Your task to perform on an android device: change the clock display to show seconds Image 0: 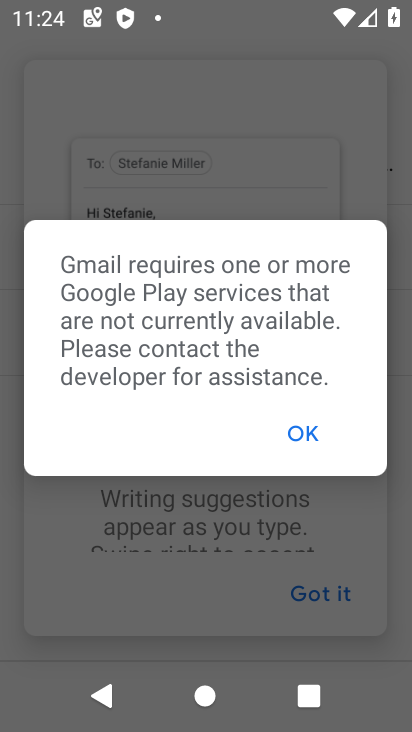
Step 0: press home button
Your task to perform on an android device: change the clock display to show seconds Image 1: 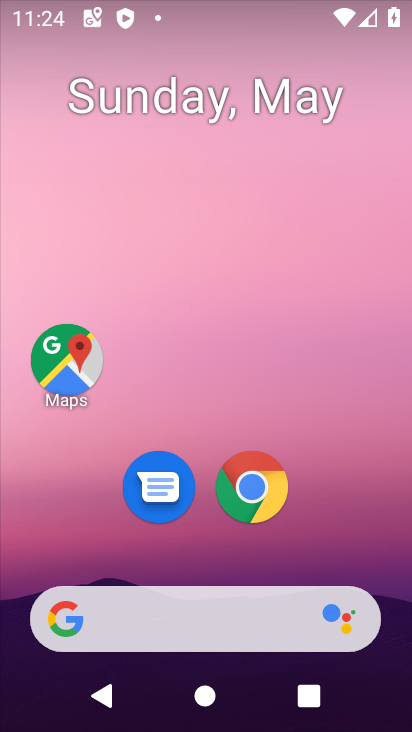
Step 1: drag from (371, 547) to (385, 179)
Your task to perform on an android device: change the clock display to show seconds Image 2: 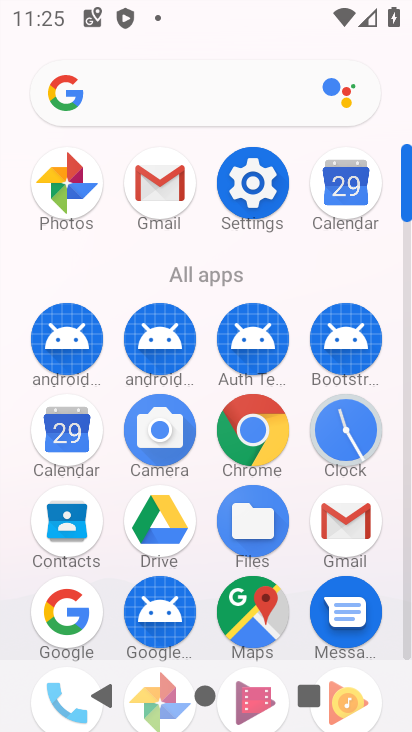
Step 2: click (339, 438)
Your task to perform on an android device: change the clock display to show seconds Image 3: 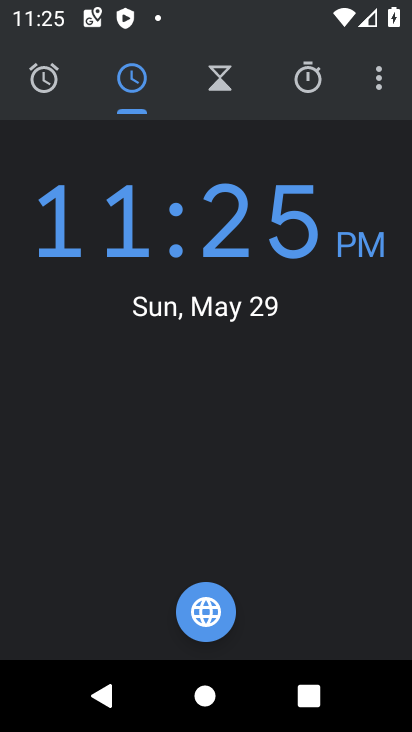
Step 3: click (378, 93)
Your task to perform on an android device: change the clock display to show seconds Image 4: 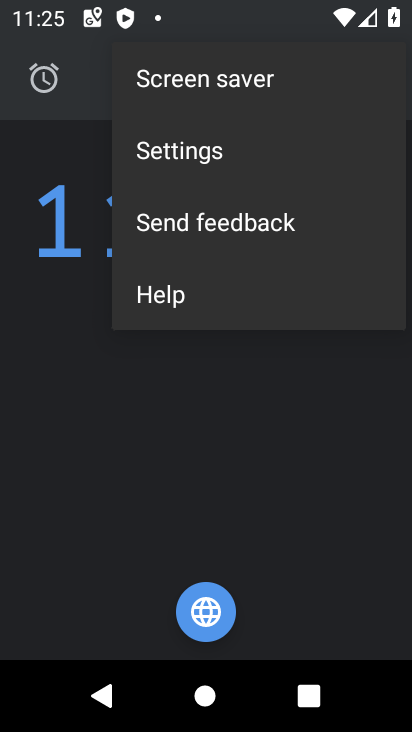
Step 4: click (234, 167)
Your task to perform on an android device: change the clock display to show seconds Image 5: 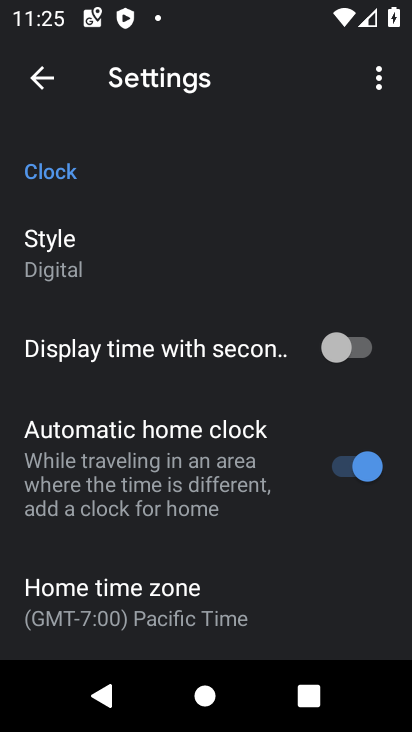
Step 5: drag from (285, 546) to (291, 427)
Your task to perform on an android device: change the clock display to show seconds Image 6: 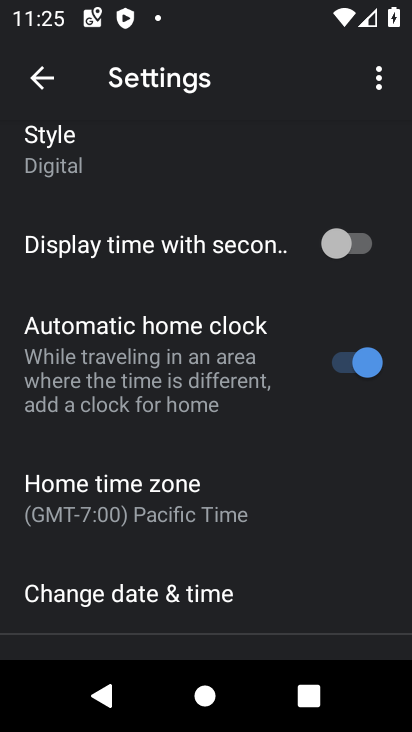
Step 6: drag from (298, 519) to (306, 417)
Your task to perform on an android device: change the clock display to show seconds Image 7: 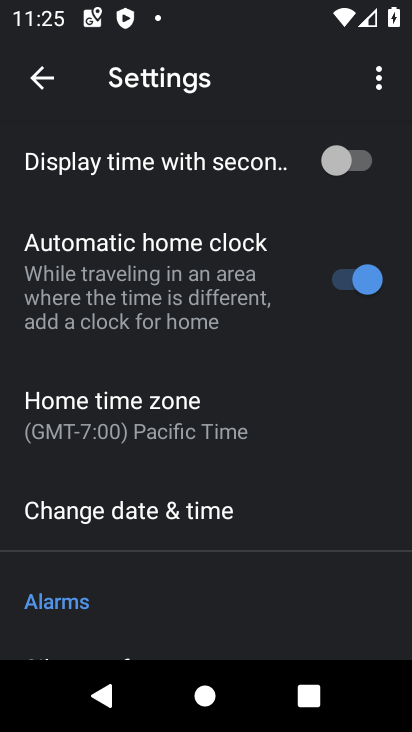
Step 7: drag from (312, 534) to (316, 440)
Your task to perform on an android device: change the clock display to show seconds Image 8: 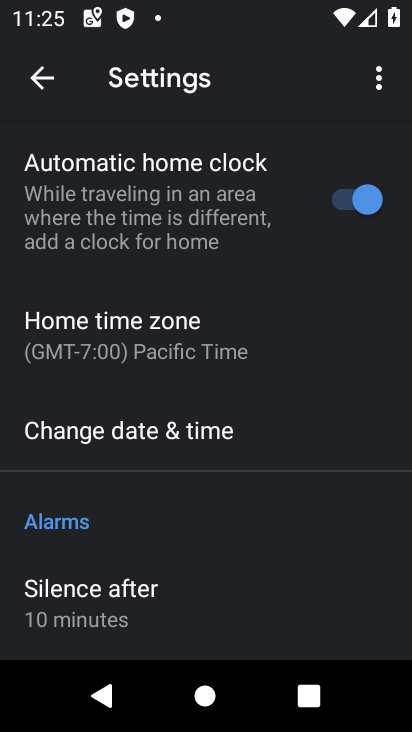
Step 8: drag from (314, 530) to (313, 344)
Your task to perform on an android device: change the clock display to show seconds Image 9: 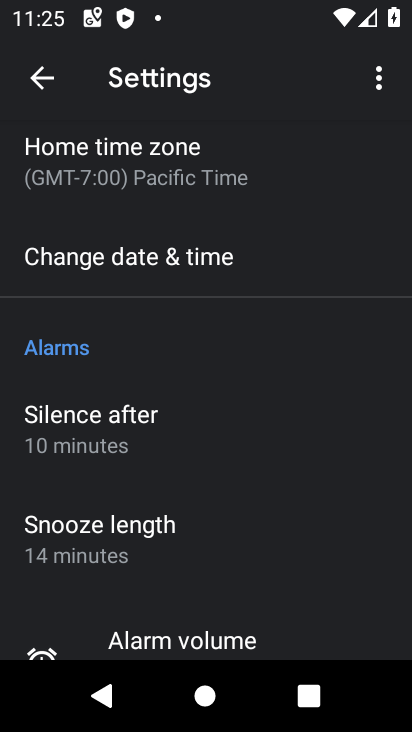
Step 9: drag from (314, 494) to (322, 343)
Your task to perform on an android device: change the clock display to show seconds Image 10: 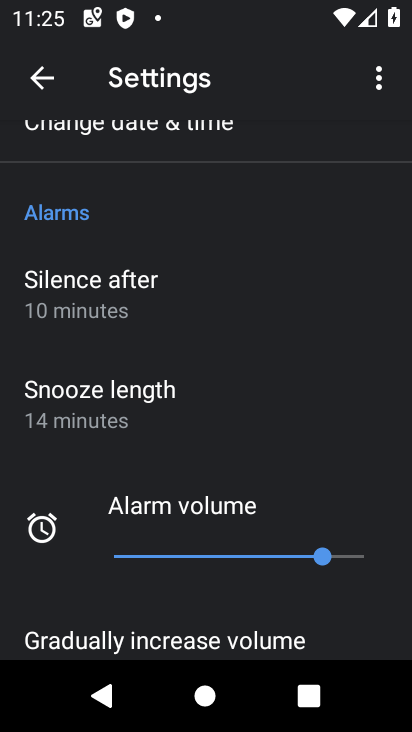
Step 10: drag from (338, 497) to (340, 374)
Your task to perform on an android device: change the clock display to show seconds Image 11: 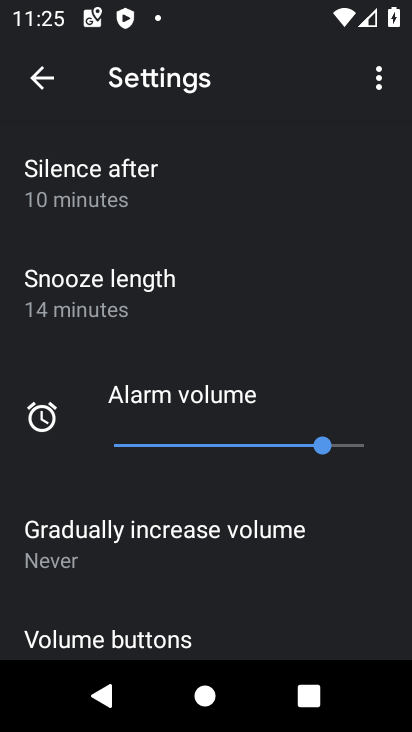
Step 11: drag from (342, 520) to (345, 357)
Your task to perform on an android device: change the clock display to show seconds Image 12: 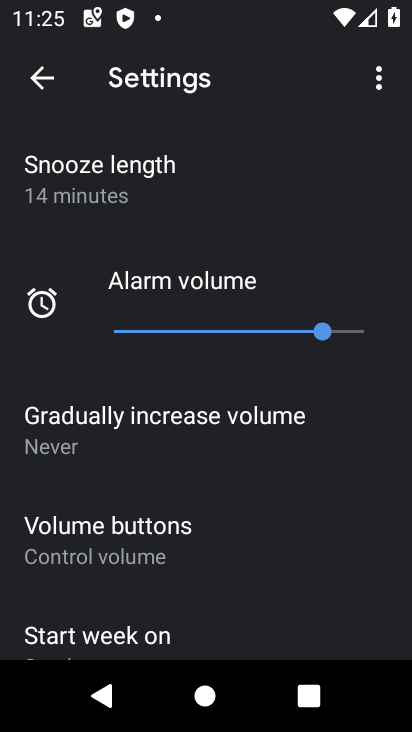
Step 12: drag from (349, 540) to (349, 415)
Your task to perform on an android device: change the clock display to show seconds Image 13: 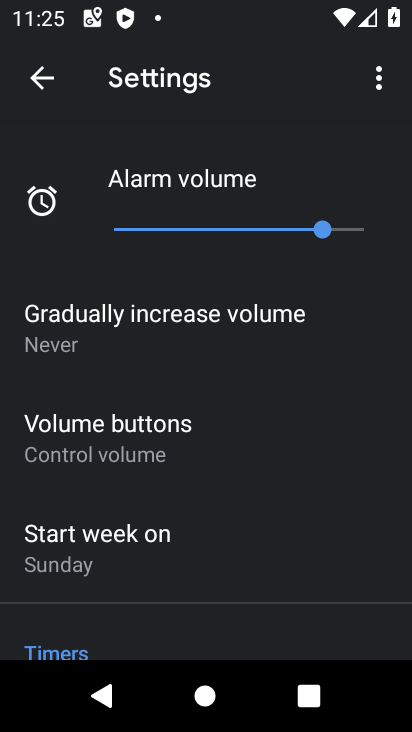
Step 13: drag from (333, 527) to (333, 367)
Your task to perform on an android device: change the clock display to show seconds Image 14: 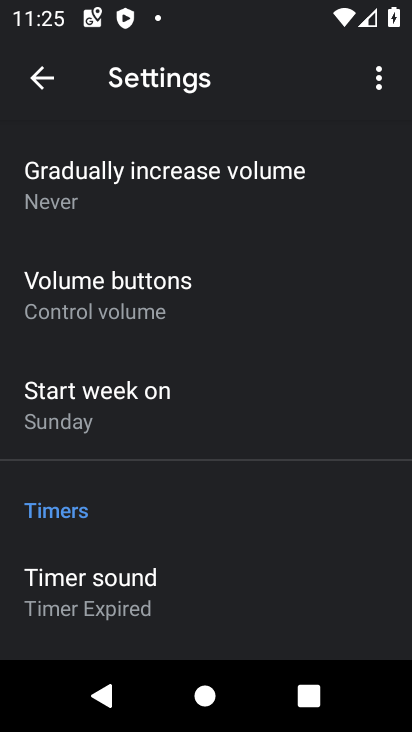
Step 14: drag from (339, 525) to (343, 297)
Your task to perform on an android device: change the clock display to show seconds Image 15: 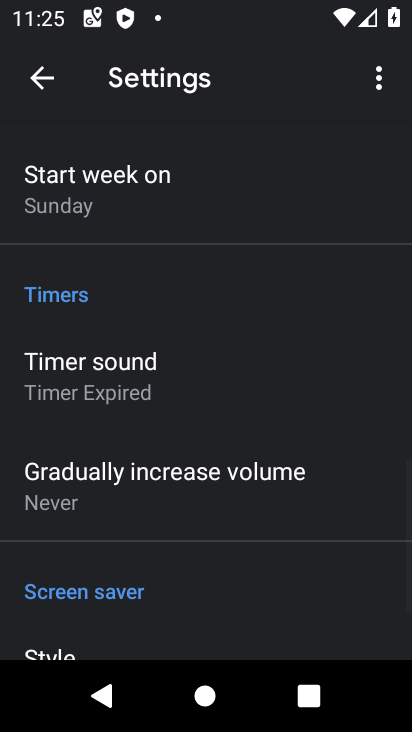
Step 15: drag from (355, 227) to (331, 343)
Your task to perform on an android device: change the clock display to show seconds Image 16: 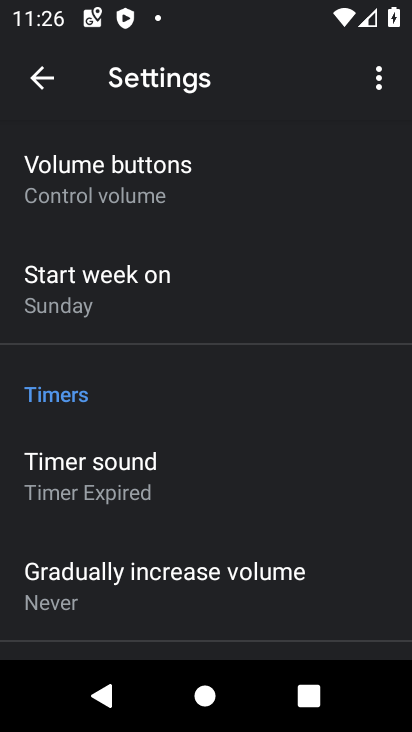
Step 16: drag from (339, 242) to (333, 366)
Your task to perform on an android device: change the clock display to show seconds Image 17: 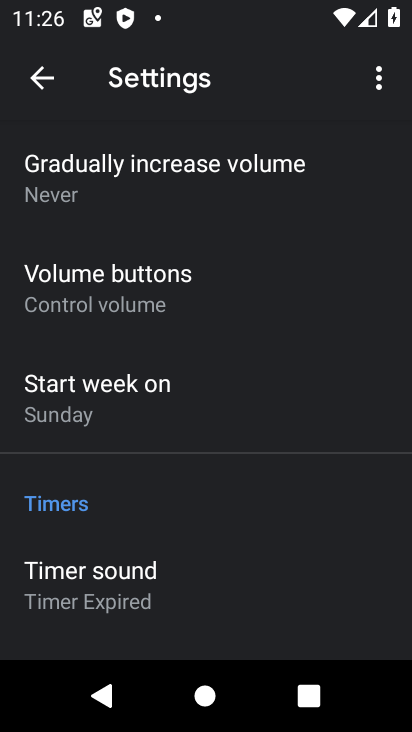
Step 17: drag from (329, 277) to (324, 417)
Your task to perform on an android device: change the clock display to show seconds Image 18: 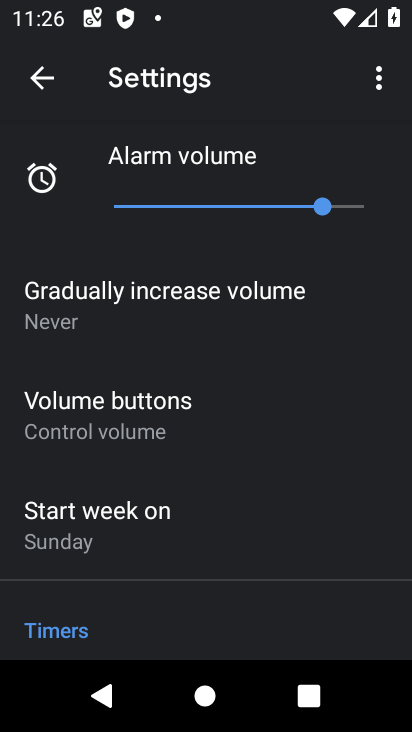
Step 18: drag from (341, 281) to (343, 377)
Your task to perform on an android device: change the clock display to show seconds Image 19: 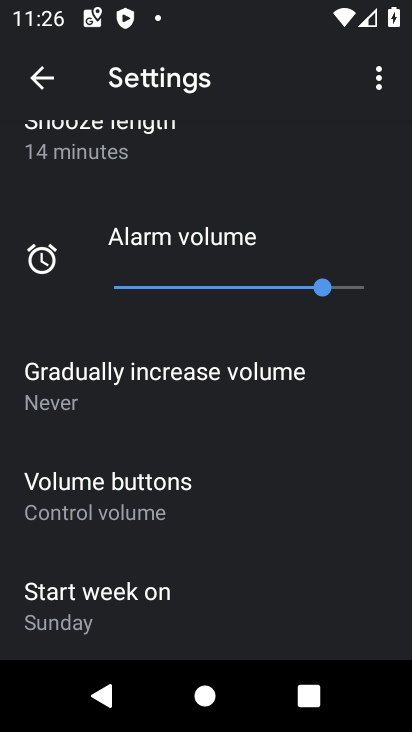
Step 19: drag from (366, 232) to (366, 360)
Your task to perform on an android device: change the clock display to show seconds Image 20: 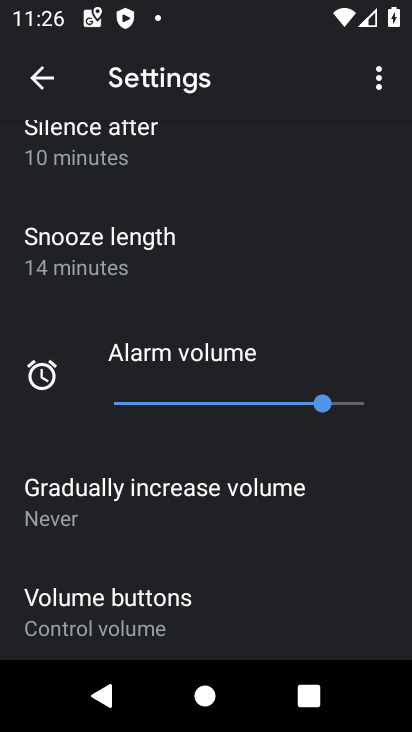
Step 20: drag from (380, 219) to (369, 345)
Your task to perform on an android device: change the clock display to show seconds Image 21: 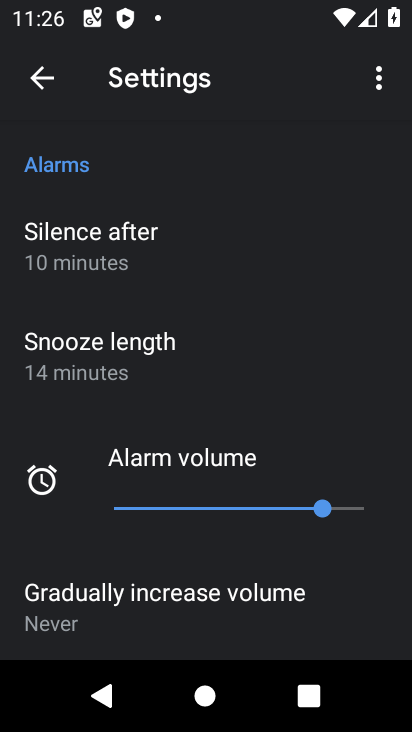
Step 21: drag from (363, 217) to (350, 345)
Your task to perform on an android device: change the clock display to show seconds Image 22: 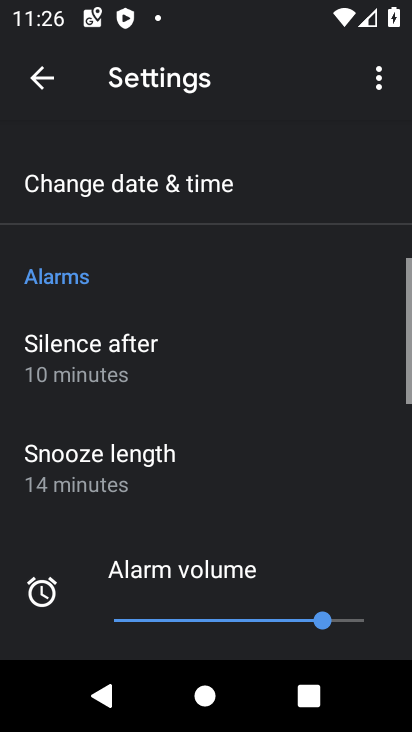
Step 22: drag from (343, 294) to (346, 427)
Your task to perform on an android device: change the clock display to show seconds Image 23: 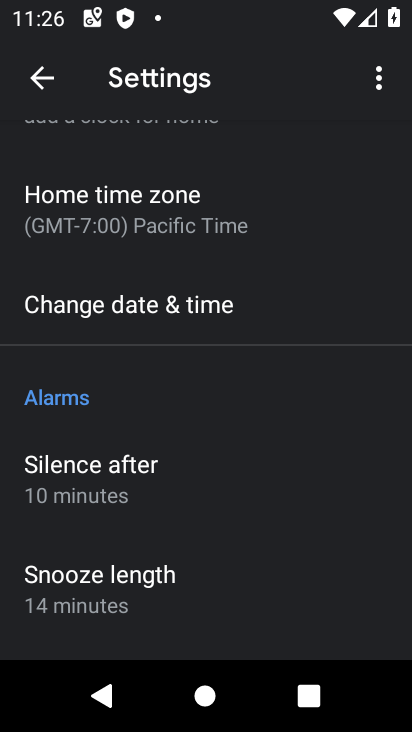
Step 23: drag from (338, 198) to (327, 390)
Your task to perform on an android device: change the clock display to show seconds Image 24: 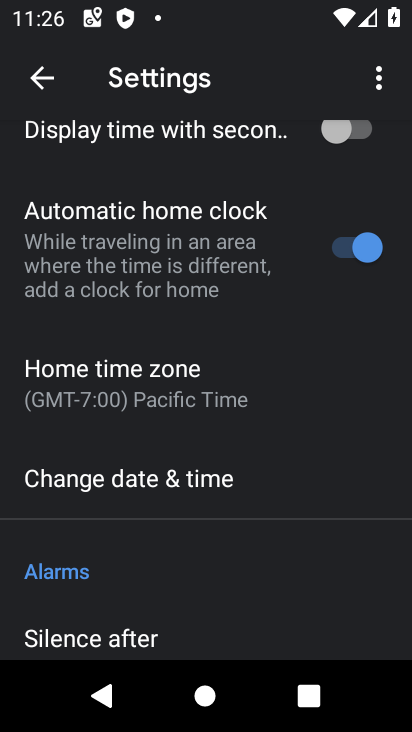
Step 24: drag from (298, 195) to (301, 358)
Your task to perform on an android device: change the clock display to show seconds Image 25: 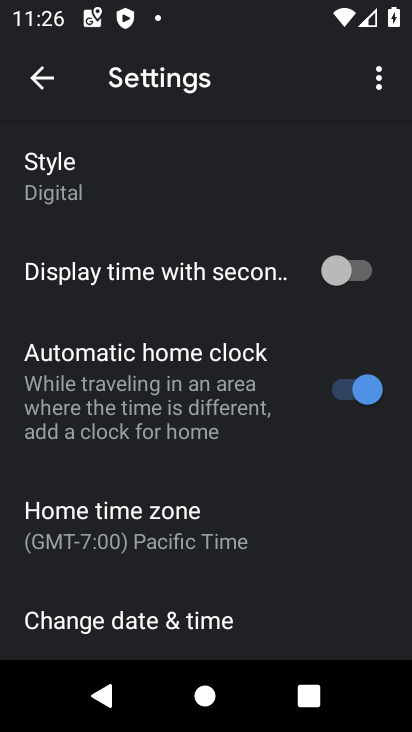
Step 25: click (337, 285)
Your task to perform on an android device: change the clock display to show seconds Image 26: 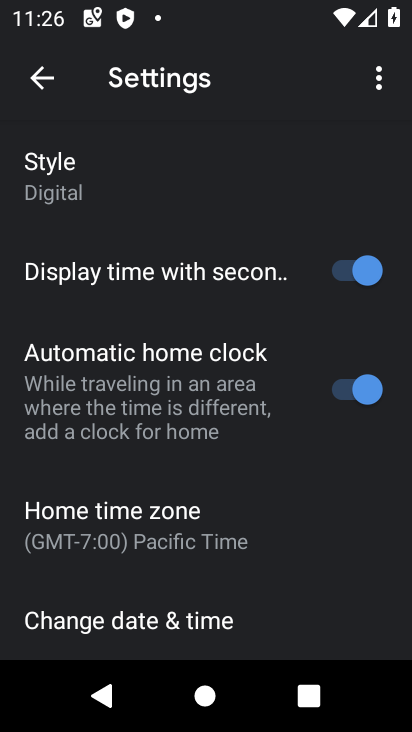
Step 26: task complete